Your task to perform on an android device: turn off translation in the chrome app Image 0: 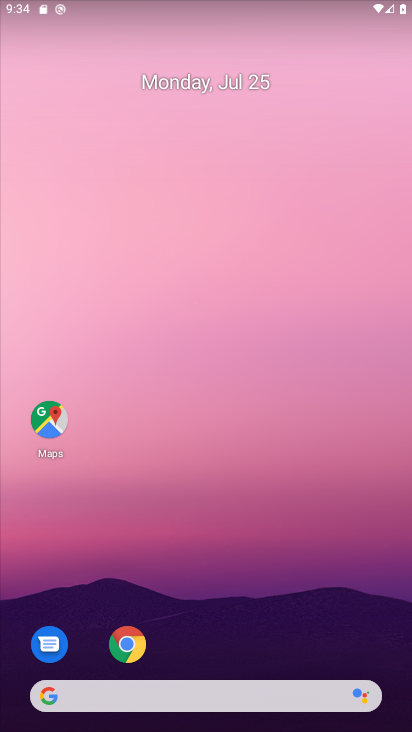
Step 0: click (124, 647)
Your task to perform on an android device: turn off translation in the chrome app Image 1: 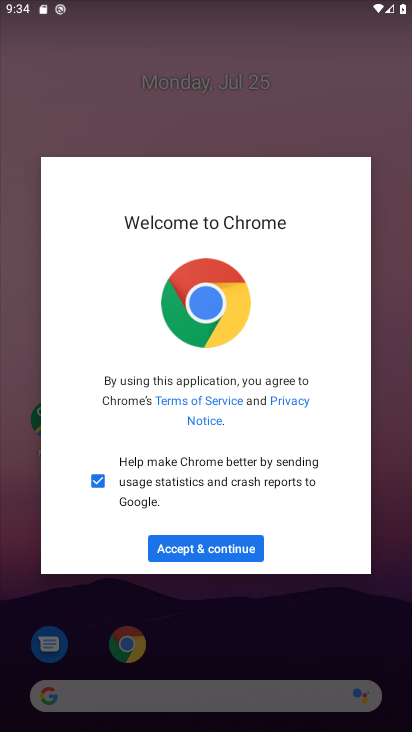
Step 1: click (210, 549)
Your task to perform on an android device: turn off translation in the chrome app Image 2: 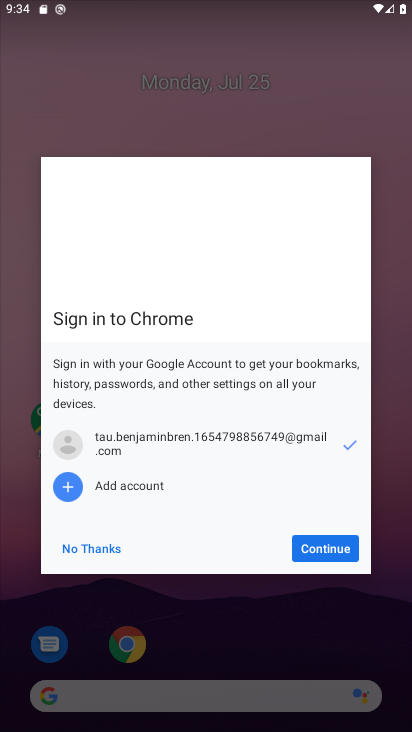
Step 2: click (307, 544)
Your task to perform on an android device: turn off translation in the chrome app Image 3: 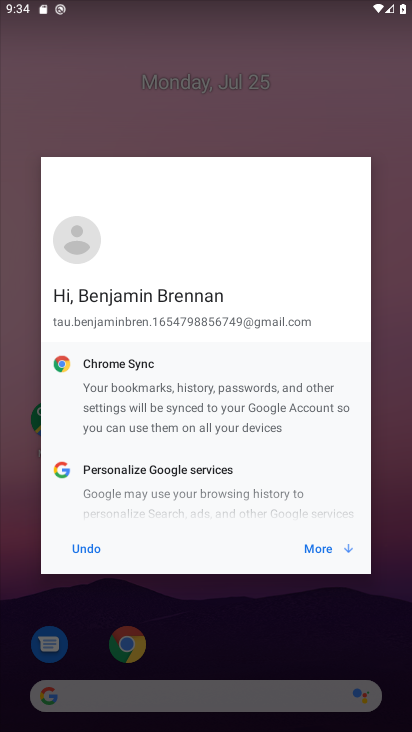
Step 3: click (315, 551)
Your task to perform on an android device: turn off translation in the chrome app Image 4: 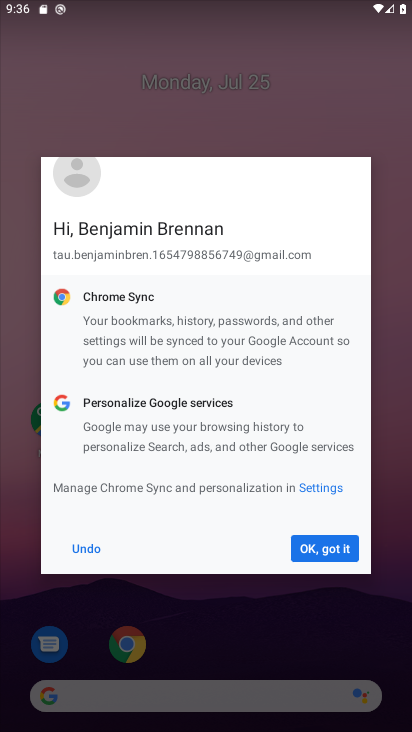
Step 4: click (319, 553)
Your task to perform on an android device: turn off translation in the chrome app Image 5: 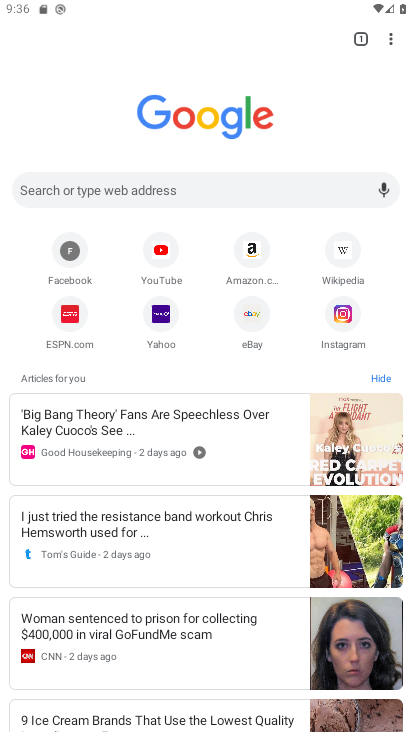
Step 5: click (389, 37)
Your task to perform on an android device: turn off translation in the chrome app Image 6: 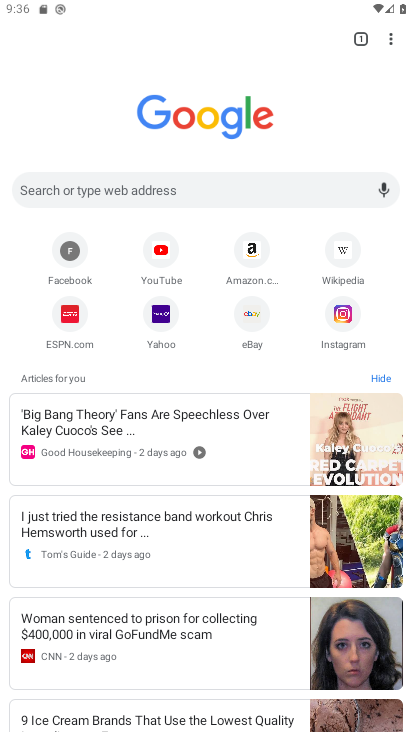
Step 6: click (389, 37)
Your task to perform on an android device: turn off translation in the chrome app Image 7: 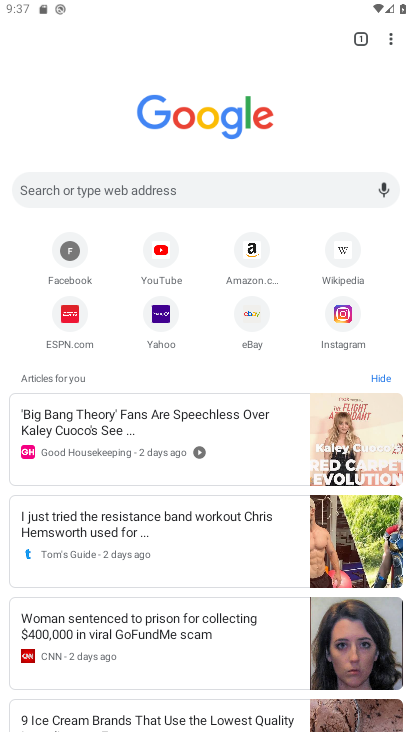
Step 7: click (389, 38)
Your task to perform on an android device: turn off translation in the chrome app Image 8: 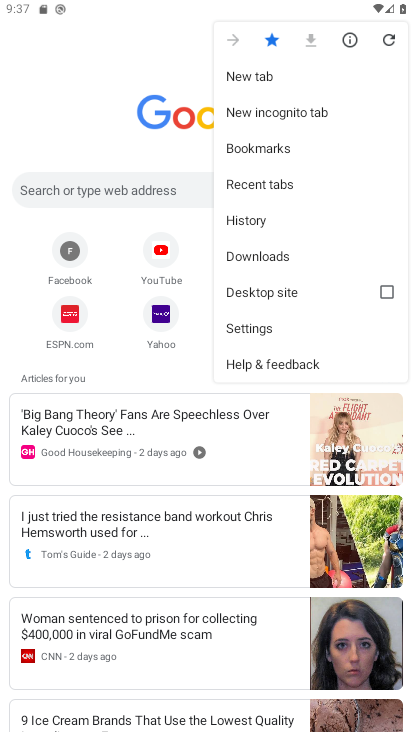
Step 8: click (248, 325)
Your task to perform on an android device: turn off translation in the chrome app Image 9: 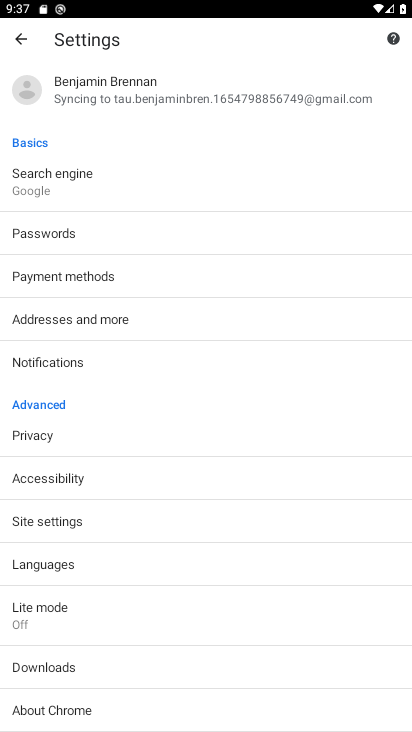
Step 9: click (36, 563)
Your task to perform on an android device: turn off translation in the chrome app Image 10: 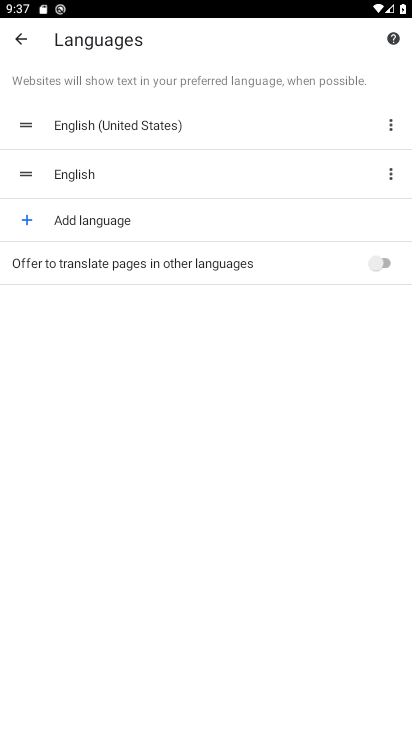
Step 10: click (387, 260)
Your task to perform on an android device: turn off translation in the chrome app Image 11: 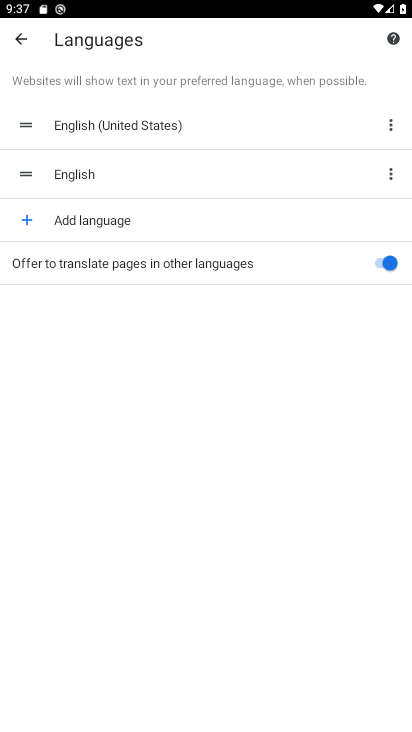
Step 11: click (374, 260)
Your task to perform on an android device: turn off translation in the chrome app Image 12: 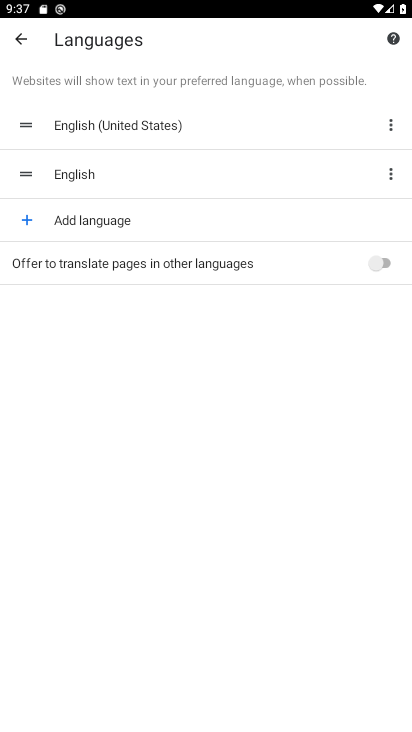
Step 12: task complete